Your task to perform on an android device: open chrome privacy settings Image 0: 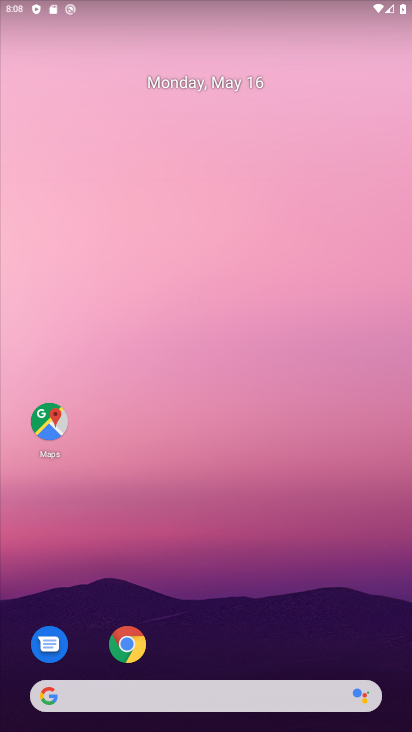
Step 0: drag from (300, 712) to (335, 143)
Your task to perform on an android device: open chrome privacy settings Image 1: 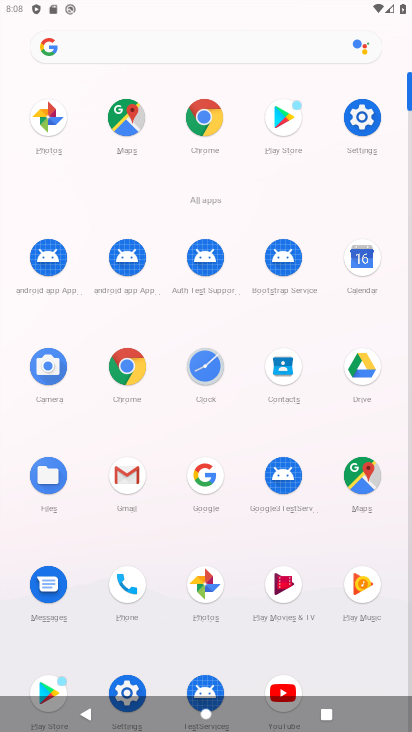
Step 1: click (365, 116)
Your task to perform on an android device: open chrome privacy settings Image 2: 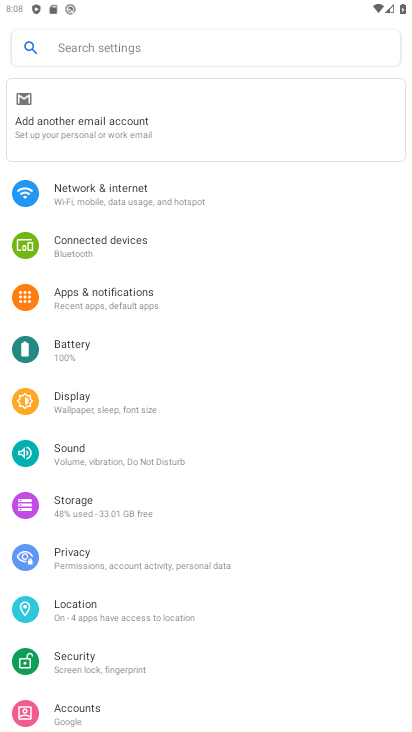
Step 2: press back button
Your task to perform on an android device: open chrome privacy settings Image 3: 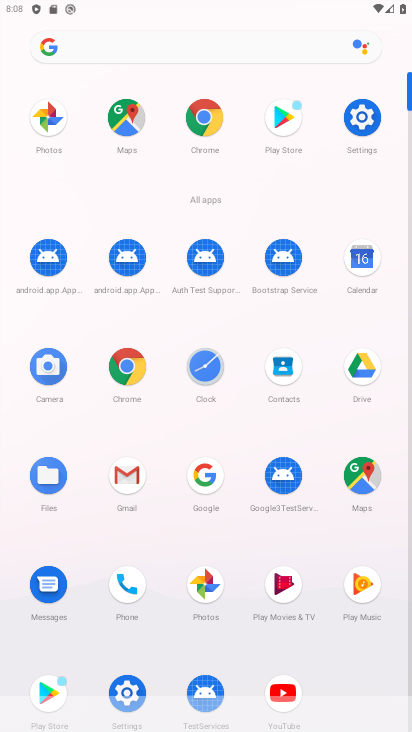
Step 3: drag from (246, 695) to (253, 476)
Your task to perform on an android device: open chrome privacy settings Image 4: 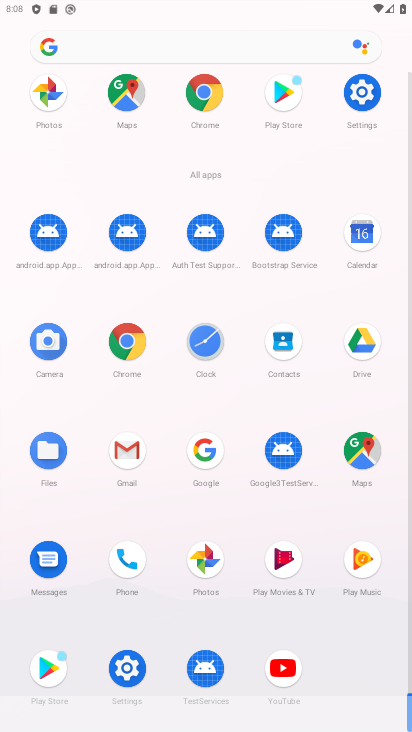
Step 4: click (128, 330)
Your task to perform on an android device: open chrome privacy settings Image 5: 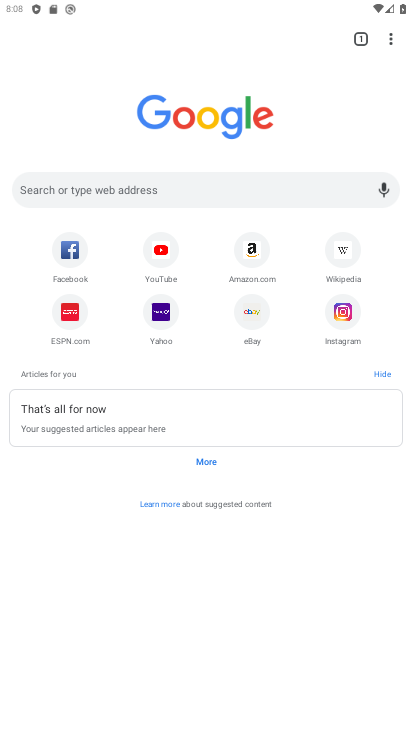
Step 5: click (385, 33)
Your task to perform on an android device: open chrome privacy settings Image 6: 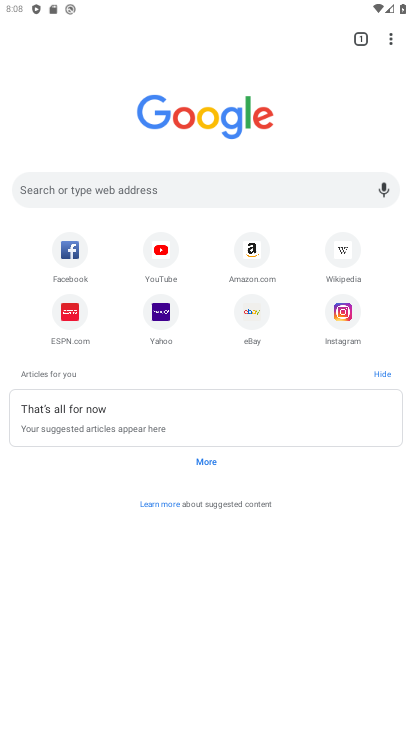
Step 6: drag from (395, 46) to (247, 324)
Your task to perform on an android device: open chrome privacy settings Image 7: 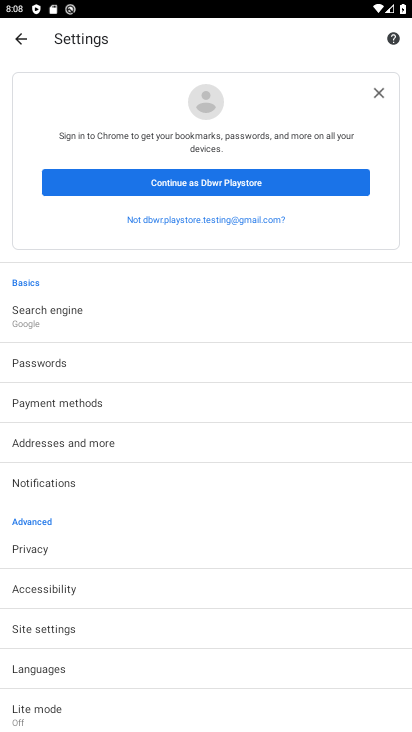
Step 7: click (63, 552)
Your task to perform on an android device: open chrome privacy settings Image 8: 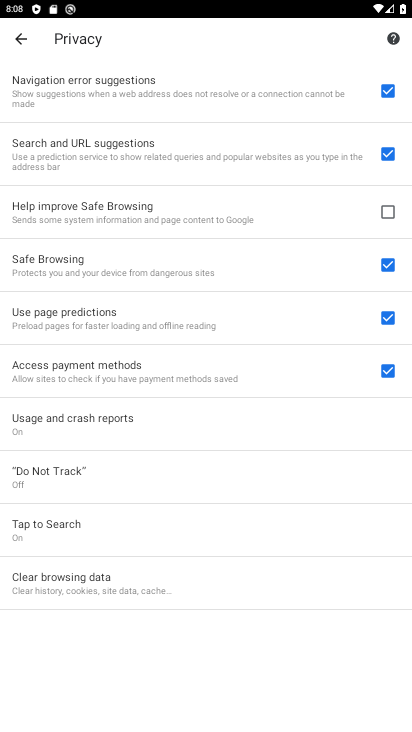
Step 8: task complete